Your task to perform on an android device: turn off airplane mode Image 0: 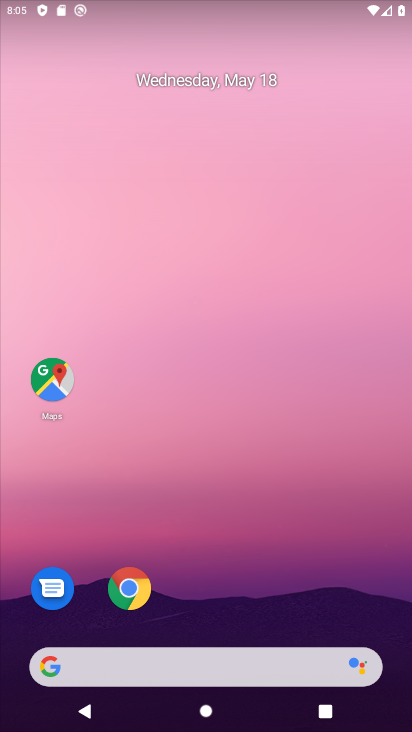
Step 0: drag from (315, 618) to (277, 7)
Your task to perform on an android device: turn off airplane mode Image 1: 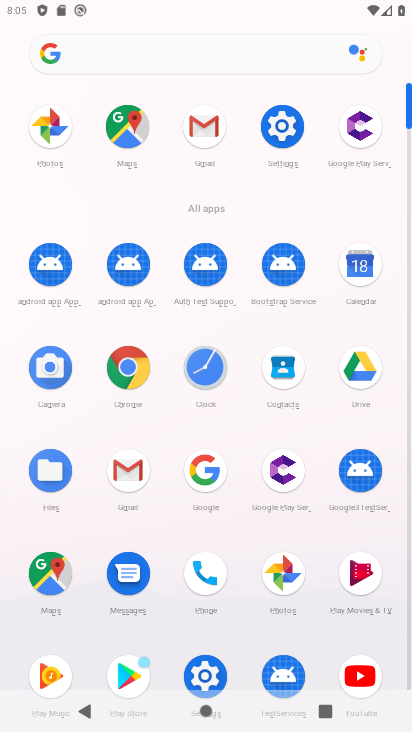
Step 1: click (279, 127)
Your task to perform on an android device: turn off airplane mode Image 2: 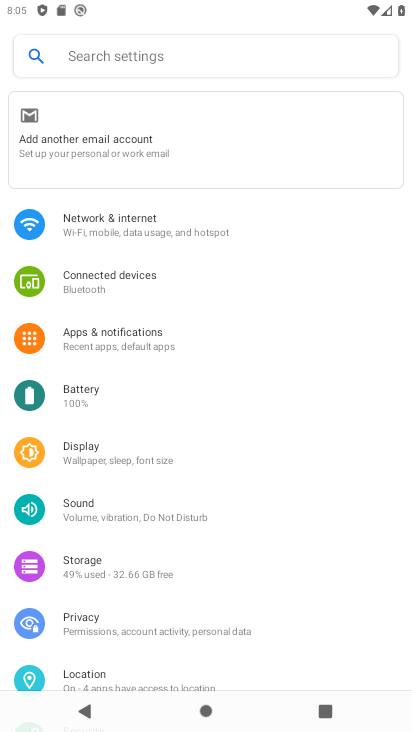
Step 2: click (129, 225)
Your task to perform on an android device: turn off airplane mode Image 3: 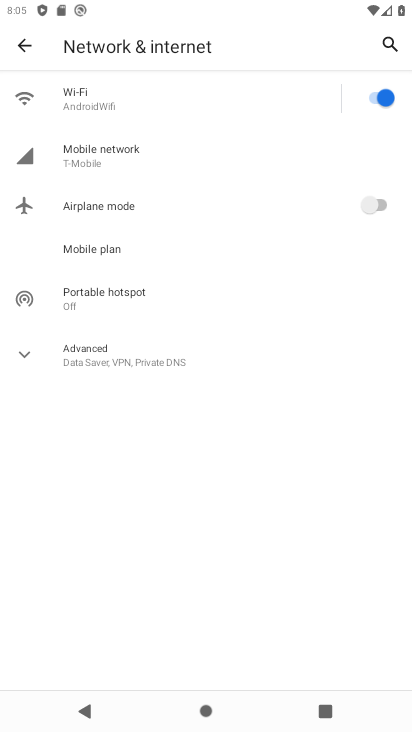
Step 3: task complete